Your task to perform on an android device: delete the emails in spam in the gmail app Image 0: 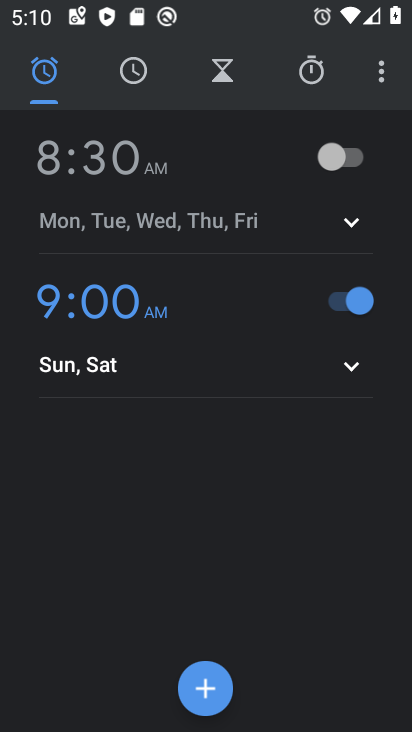
Step 0: press home button
Your task to perform on an android device: delete the emails in spam in the gmail app Image 1: 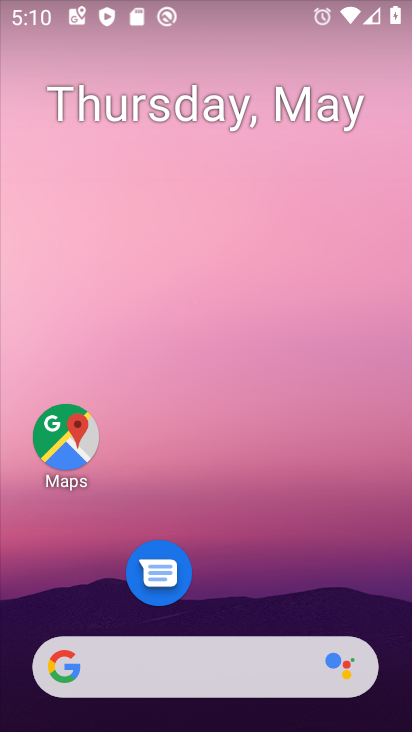
Step 1: drag from (248, 612) to (175, 8)
Your task to perform on an android device: delete the emails in spam in the gmail app Image 2: 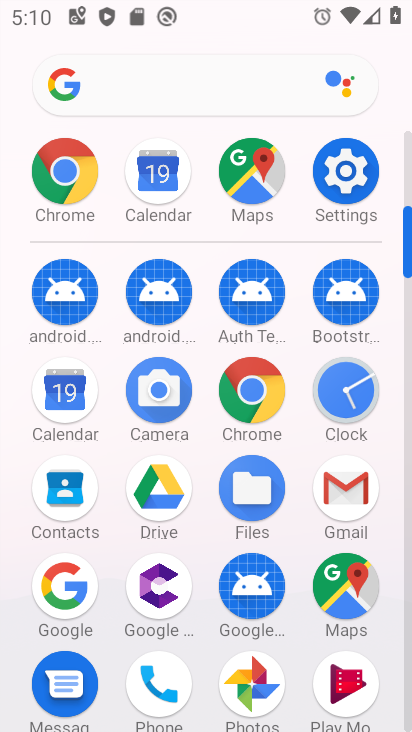
Step 2: click (352, 495)
Your task to perform on an android device: delete the emails in spam in the gmail app Image 3: 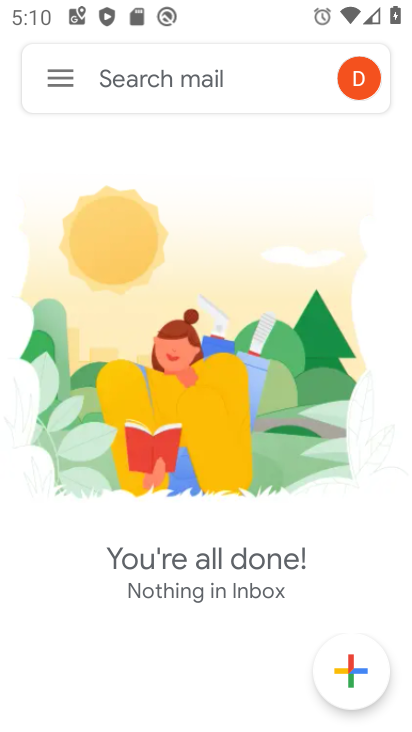
Step 3: click (68, 84)
Your task to perform on an android device: delete the emails in spam in the gmail app Image 4: 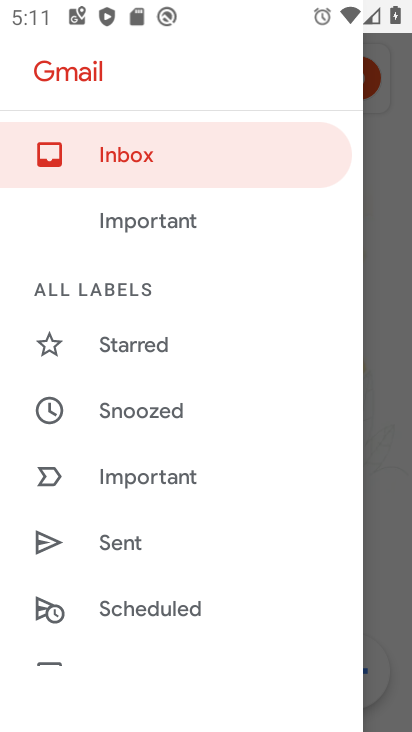
Step 4: drag from (165, 576) to (203, 213)
Your task to perform on an android device: delete the emails in spam in the gmail app Image 5: 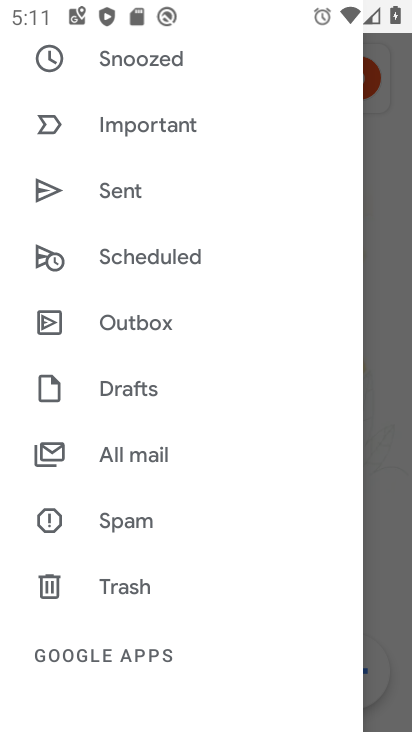
Step 5: click (114, 532)
Your task to perform on an android device: delete the emails in spam in the gmail app Image 6: 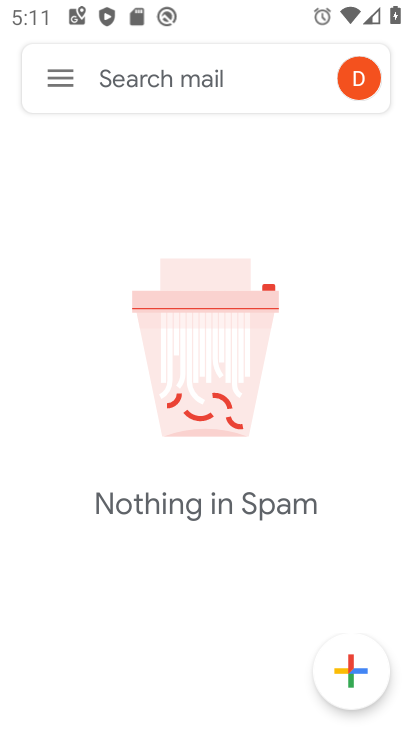
Step 6: task complete